Your task to perform on an android device: Go to Wikipedia Image 0: 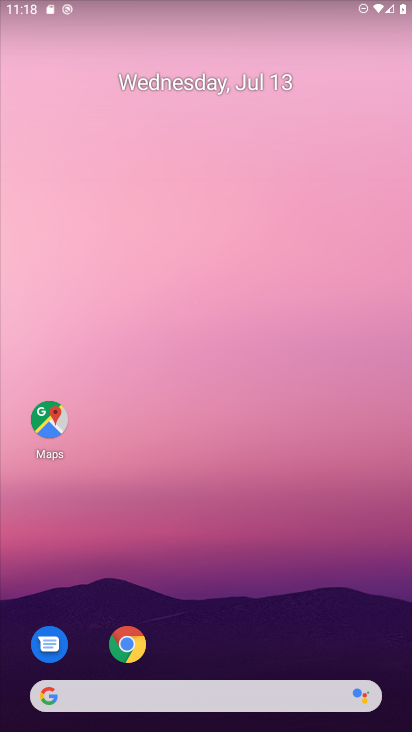
Step 0: click (127, 645)
Your task to perform on an android device: Go to Wikipedia Image 1: 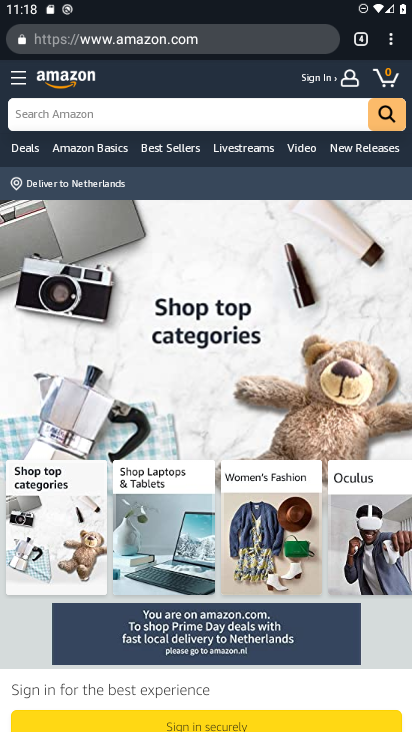
Step 1: click (392, 37)
Your task to perform on an android device: Go to Wikipedia Image 2: 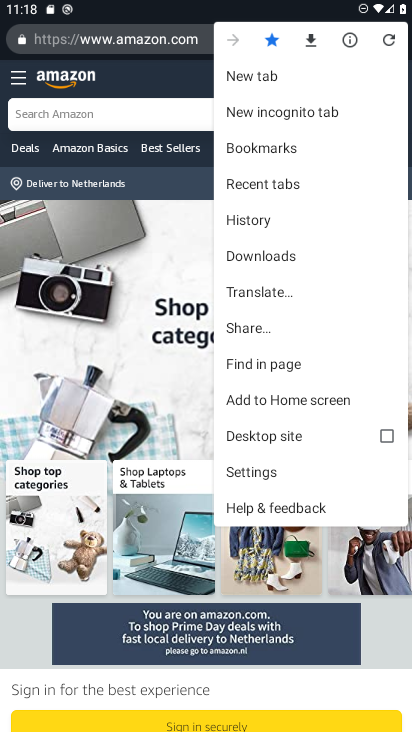
Step 2: click (266, 76)
Your task to perform on an android device: Go to Wikipedia Image 3: 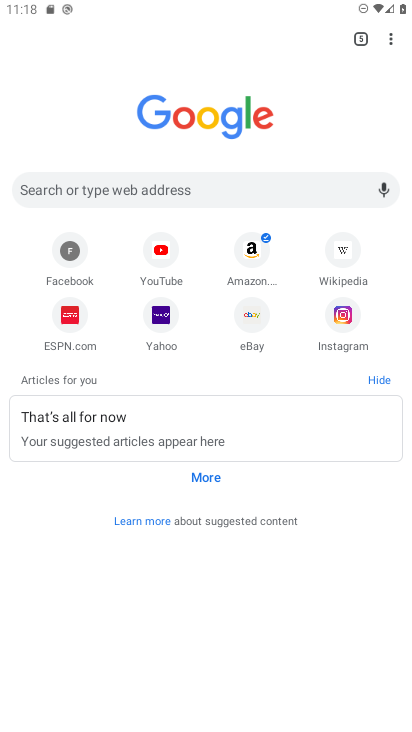
Step 3: click (343, 248)
Your task to perform on an android device: Go to Wikipedia Image 4: 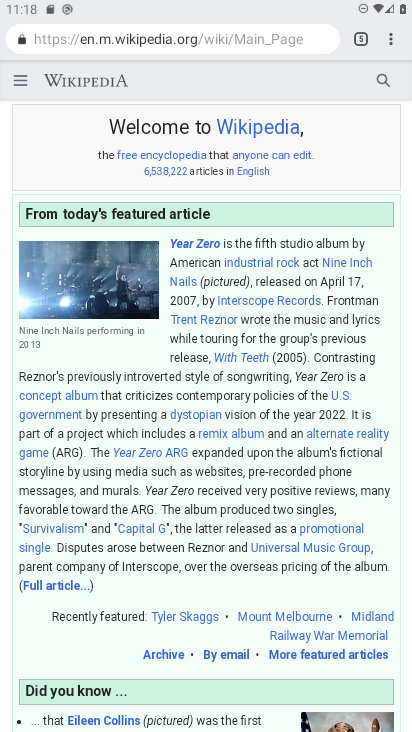
Step 4: task complete